Your task to perform on an android device: turn on bluetooth scan Image 0: 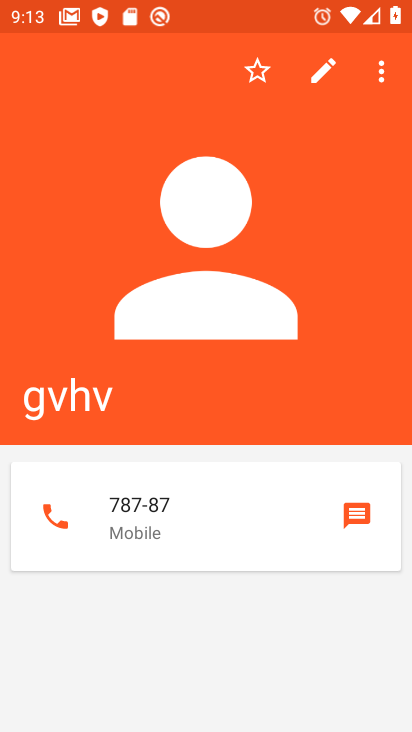
Step 0: press home button
Your task to perform on an android device: turn on bluetooth scan Image 1: 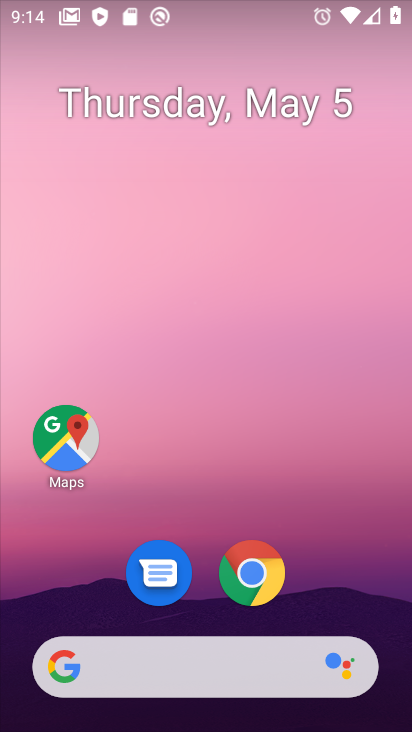
Step 1: drag from (202, 580) to (274, 89)
Your task to perform on an android device: turn on bluetooth scan Image 2: 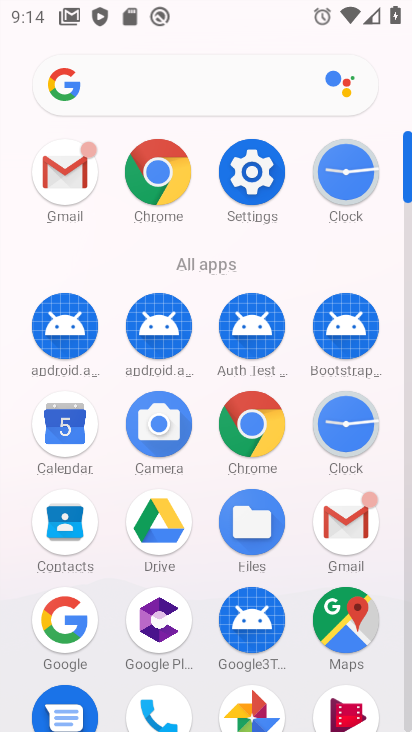
Step 2: click (253, 157)
Your task to perform on an android device: turn on bluetooth scan Image 3: 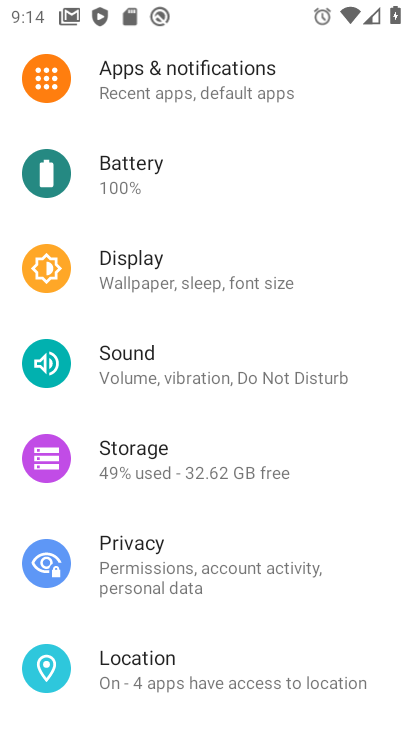
Step 3: drag from (215, 173) to (154, 649)
Your task to perform on an android device: turn on bluetooth scan Image 4: 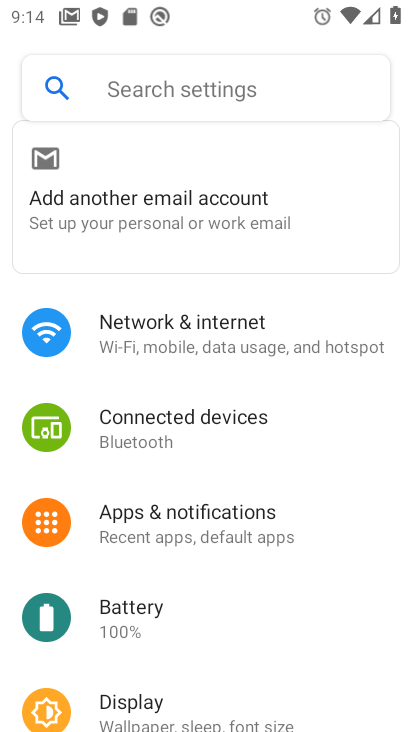
Step 4: click (131, 423)
Your task to perform on an android device: turn on bluetooth scan Image 5: 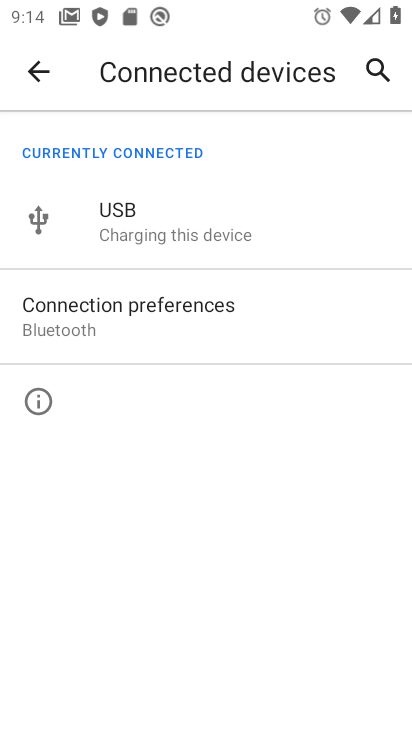
Step 5: click (89, 316)
Your task to perform on an android device: turn on bluetooth scan Image 6: 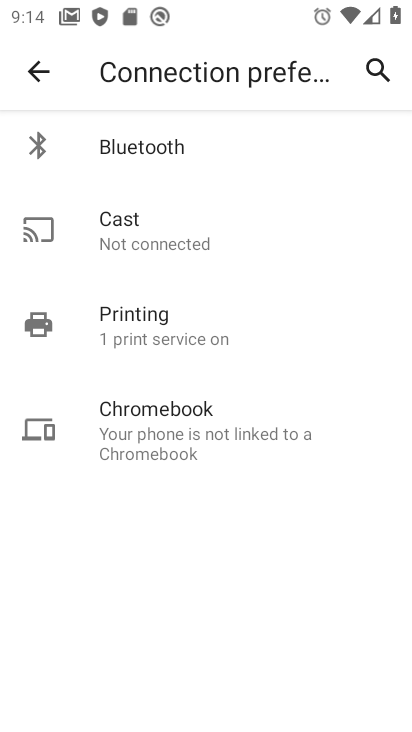
Step 6: click (137, 148)
Your task to perform on an android device: turn on bluetooth scan Image 7: 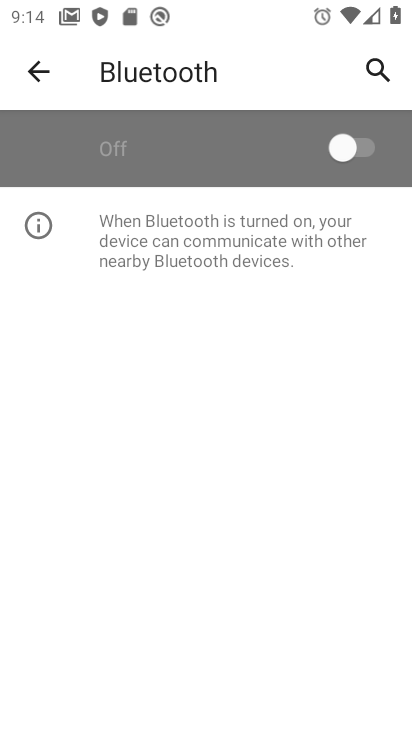
Step 7: click (344, 147)
Your task to perform on an android device: turn on bluetooth scan Image 8: 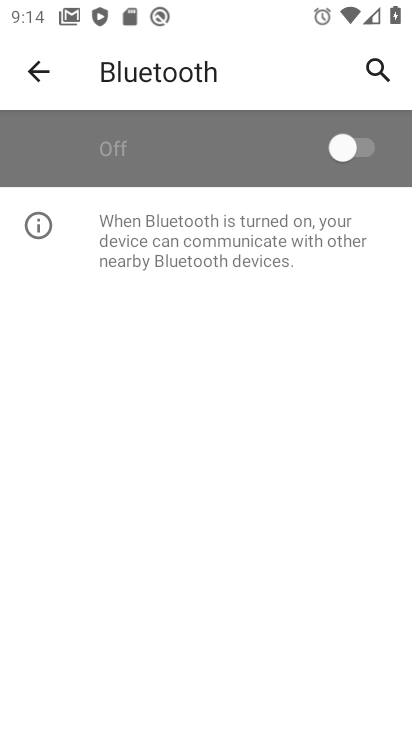
Step 8: task complete